Your task to perform on an android device: open a bookmark in the chrome app Image 0: 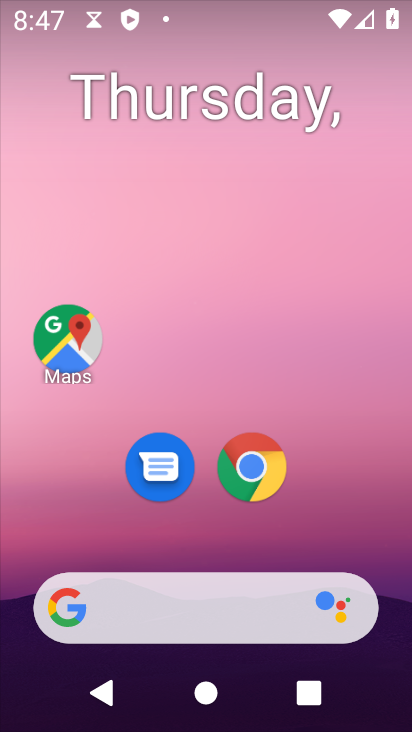
Step 0: click (238, 477)
Your task to perform on an android device: open a bookmark in the chrome app Image 1: 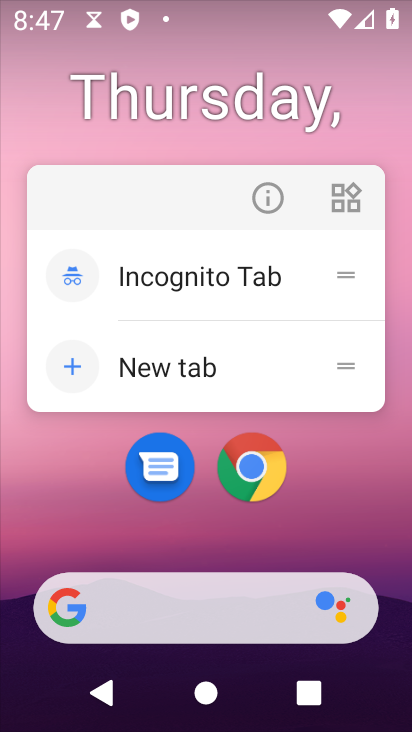
Step 1: click (238, 477)
Your task to perform on an android device: open a bookmark in the chrome app Image 2: 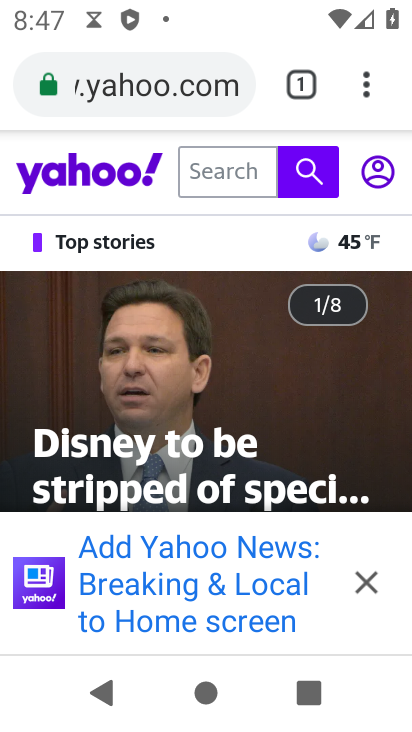
Step 2: click (364, 93)
Your task to perform on an android device: open a bookmark in the chrome app Image 3: 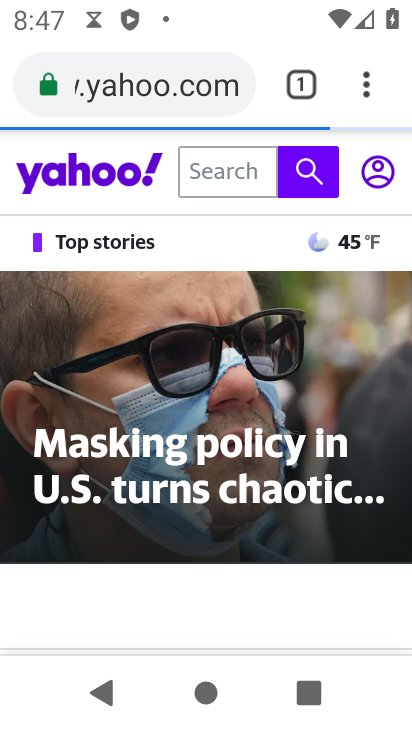
Step 3: click (364, 93)
Your task to perform on an android device: open a bookmark in the chrome app Image 4: 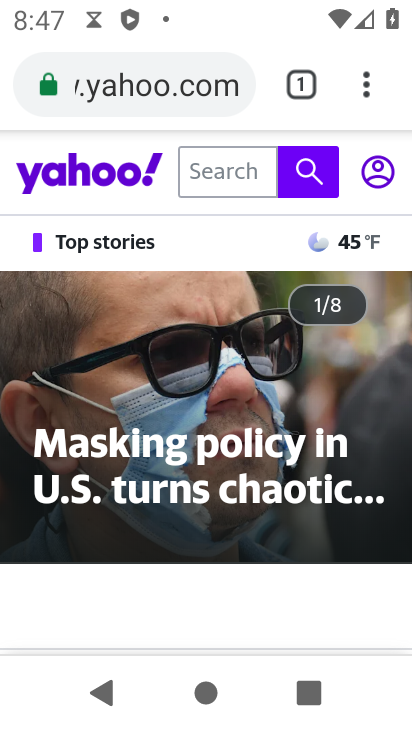
Step 4: click (364, 93)
Your task to perform on an android device: open a bookmark in the chrome app Image 5: 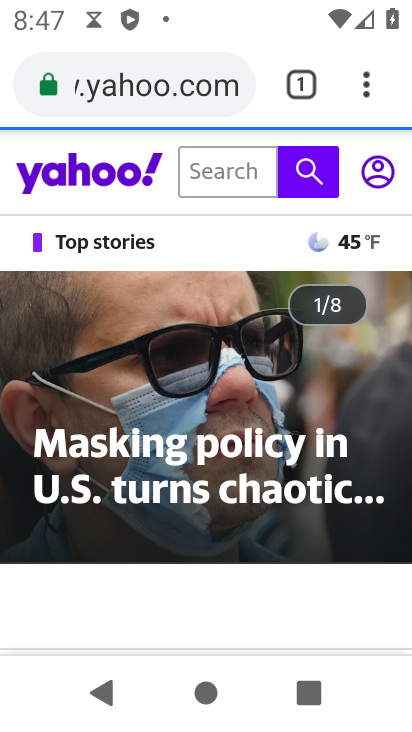
Step 5: click (364, 93)
Your task to perform on an android device: open a bookmark in the chrome app Image 6: 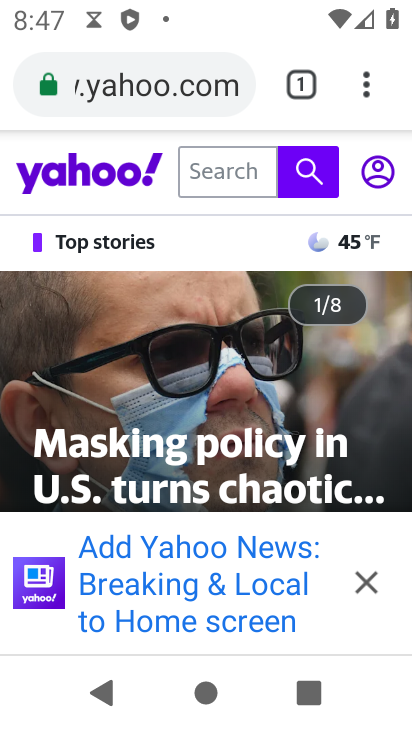
Step 6: click (375, 101)
Your task to perform on an android device: open a bookmark in the chrome app Image 7: 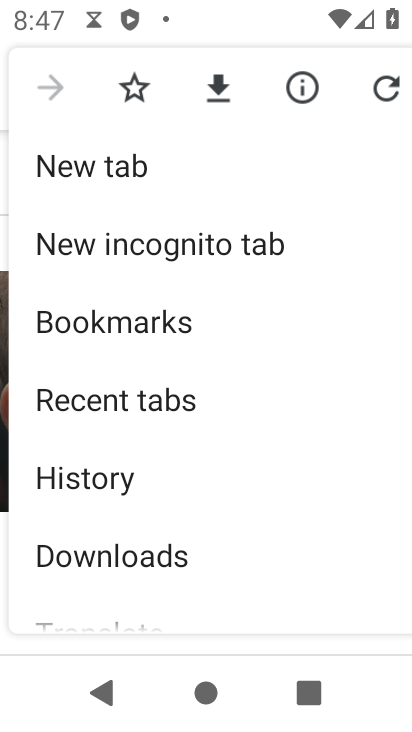
Step 7: click (117, 335)
Your task to perform on an android device: open a bookmark in the chrome app Image 8: 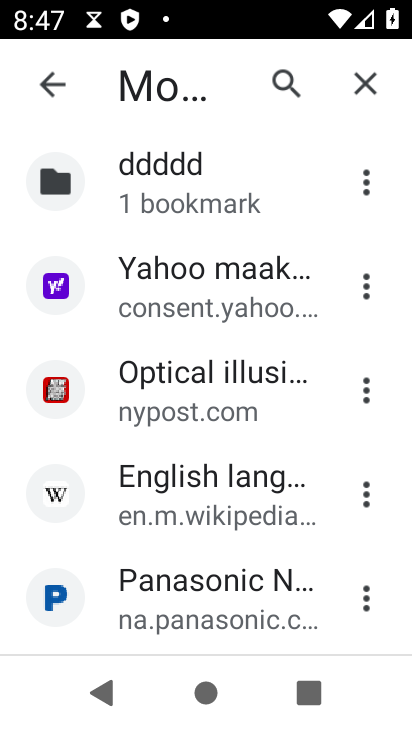
Step 8: click (152, 522)
Your task to perform on an android device: open a bookmark in the chrome app Image 9: 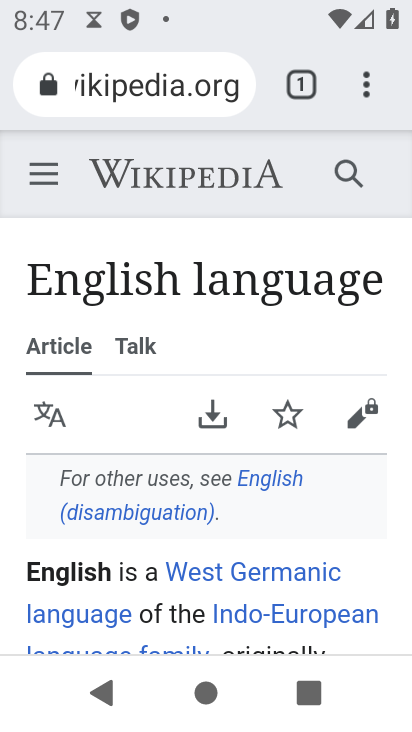
Step 9: task complete